Your task to perform on an android device: Open network settings Image 0: 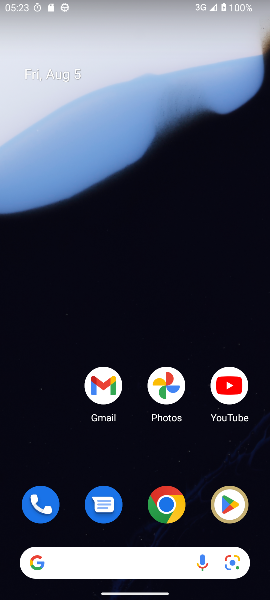
Step 0: drag from (34, 585) to (147, 267)
Your task to perform on an android device: Open network settings Image 1: 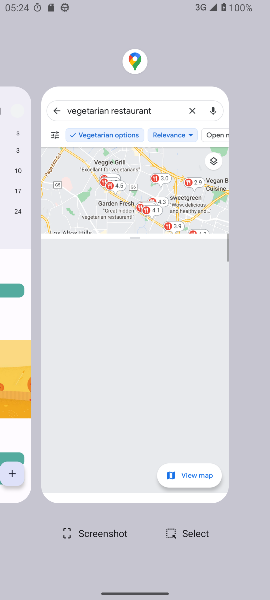
Step 1: task complete